Your task to perform on an android device: Open maps Image 0: 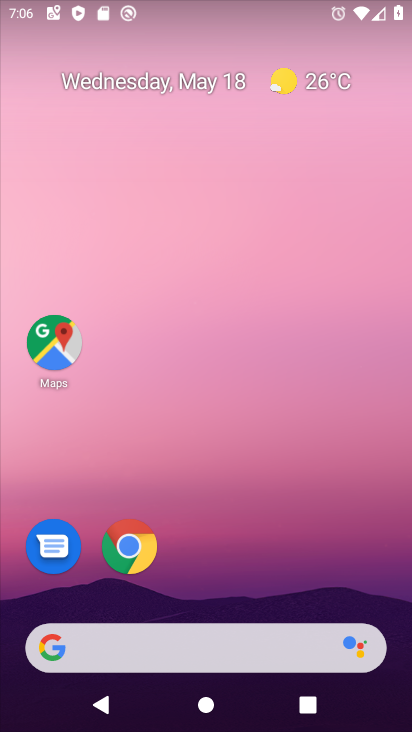
Step 0: drag from (386, 642) to (259, 48)
Your task to perform on an android device: Open maps Image 1: 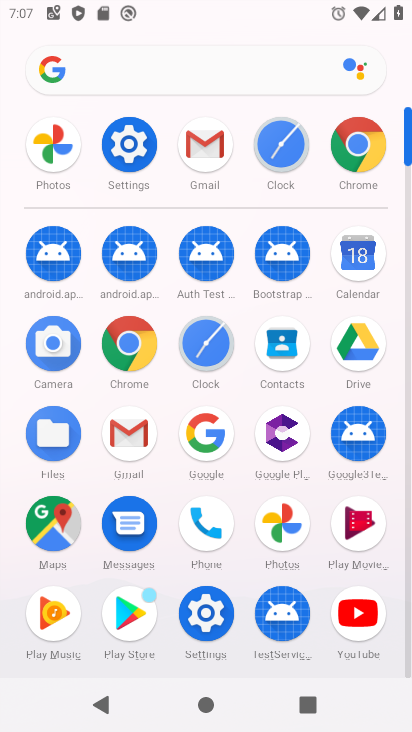
Step 1: click (41, 514)
Your task to perform on an android device: Open maps Image 2: 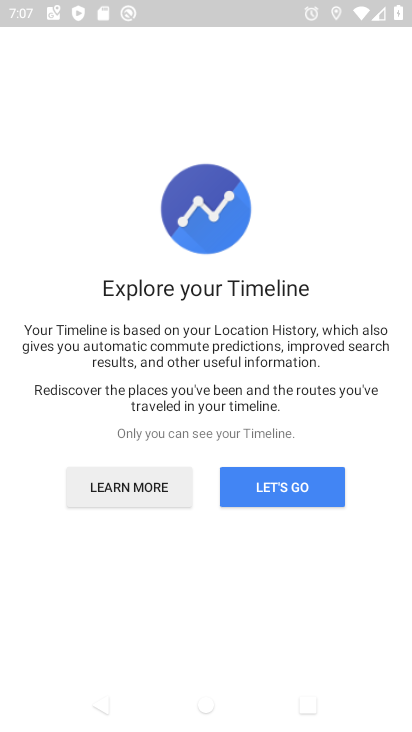
Step 2: task complete